Your task to perform on an android device: Open Amazon Image 0: 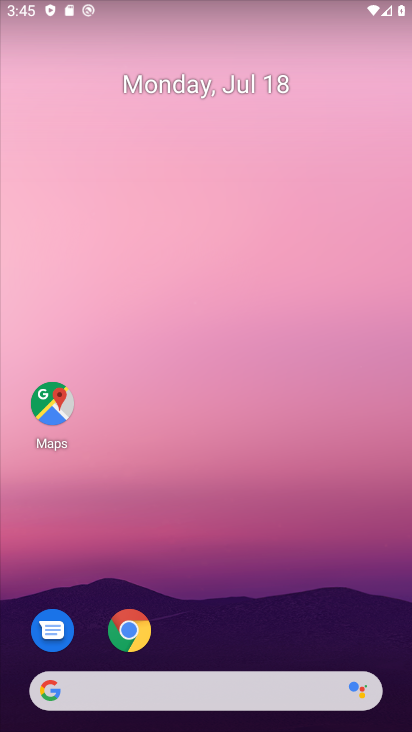
Step 0: drag from (285, 625) to (200, 108)
Your task to perform on an android device: Open Amazon Image 1: 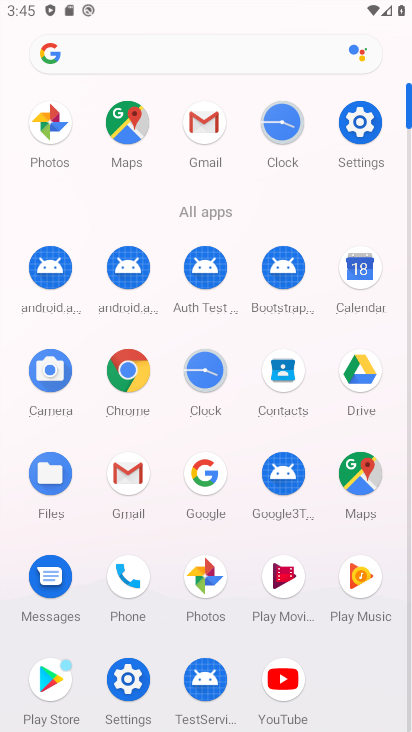
Step 1: click (131, 370)
Your task to perform on an android device: Open Amazon Image 2: 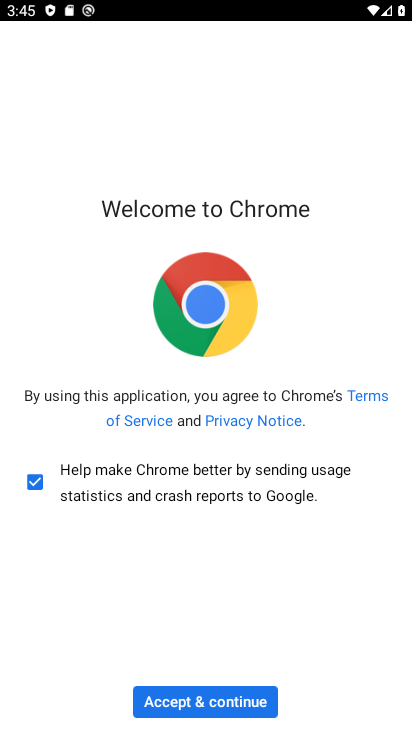
Step 2: click (245, 703)
Your task to perform on an android device: Open Amazon Image 3: 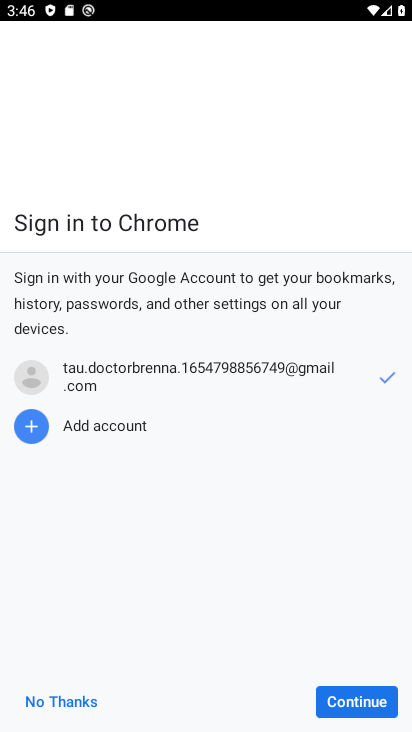
Step 3: click (381, 704)
Your task to perform on an android device: Open Amazon Image 4: 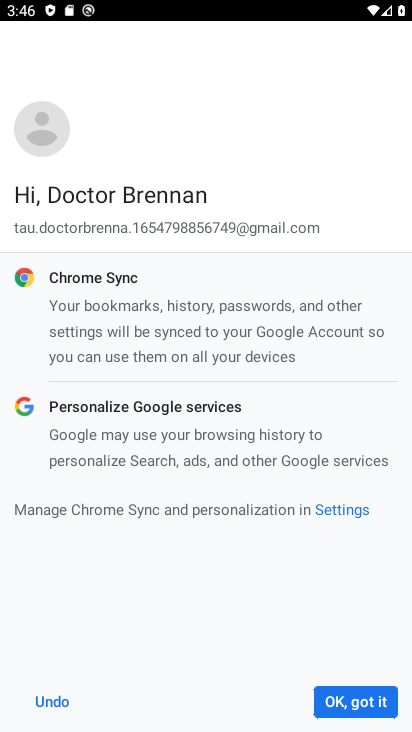
Step 4: click (341, 710)
Your task to perform on an android device: Open Amazon Image 5: 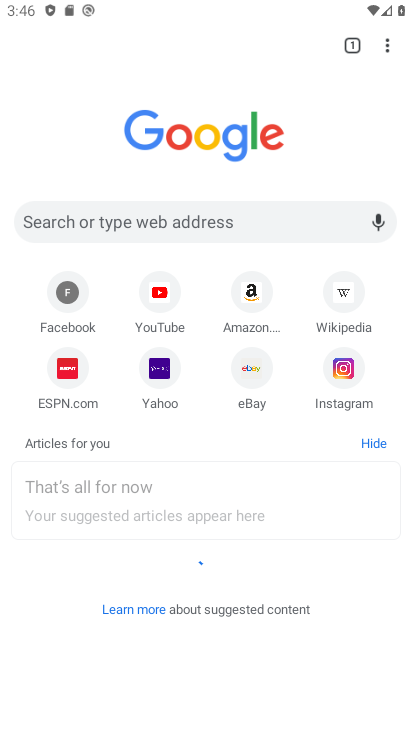
Step 5: click (248, 311)
Your task to perform on an android device: Open Amazon Image 6: 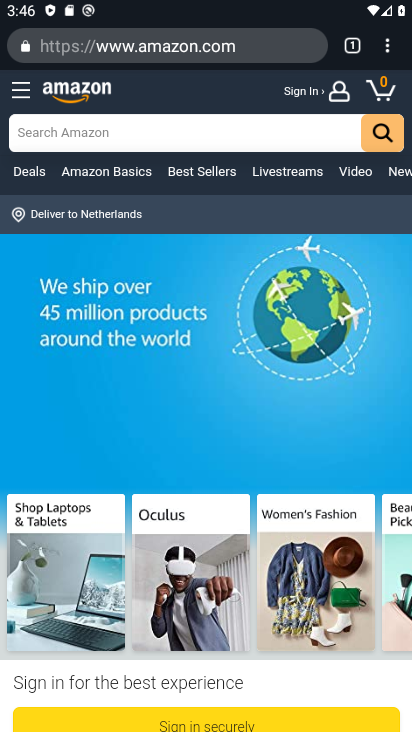
Step 6: task complete